Your task to perform on an android device: change notification settings in the gmail app Image 0: 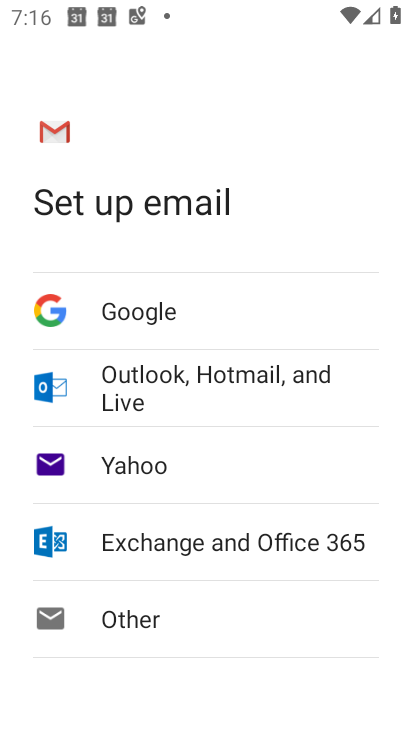
Step 0: press home button
Your task to perform on an android device: change notification settings in the gmail app Image 1: 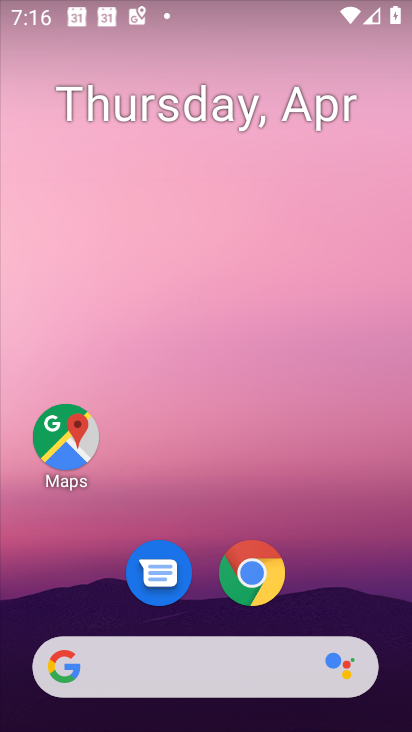
Step 1: drag from (391, 572) to (379, 170)
Your task to perform on an android device: change notification settings in the gmail app Image 2: 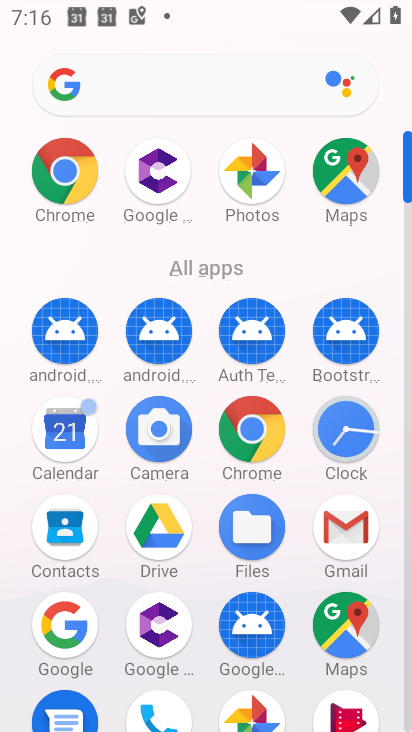
Step 2: click (353, 539)
Your task to perform on an android device: change notification settings in the gmail app Image 3: 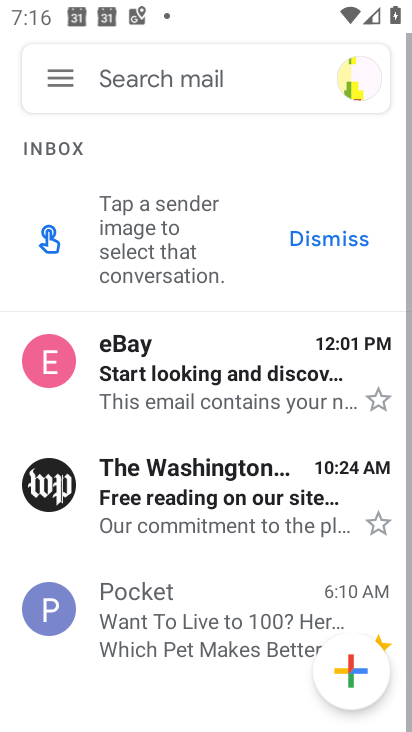
Step 3: click (55, 82)
Your task to perform on an android device: change notification settings in the gmail app Image 4: 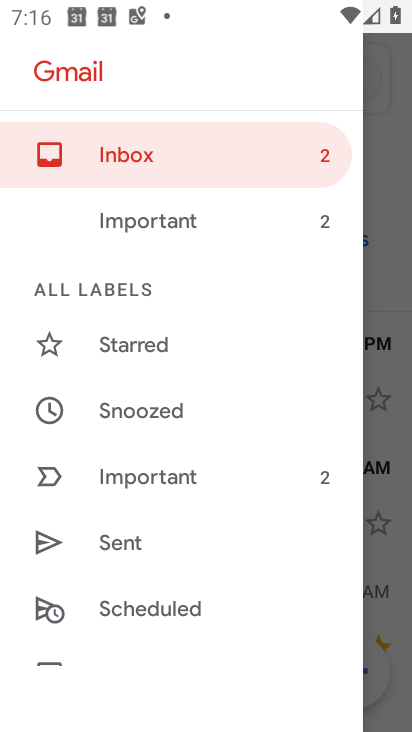
Step 4: drag from (272, 617) to (248, 204)
Your task to perform on an android device: change notification settings in the gmail app Image 5: 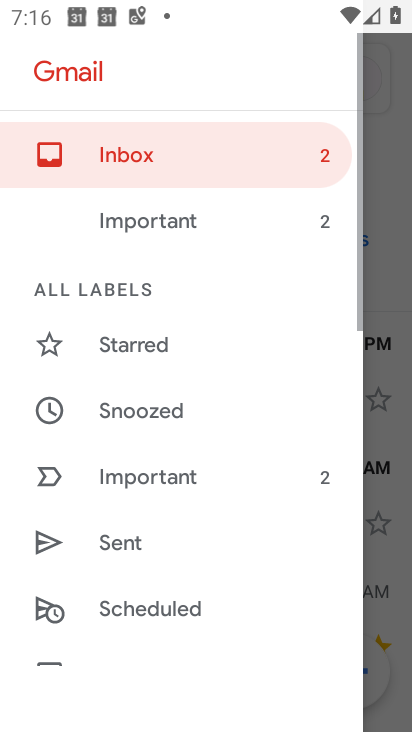
Step 5: click (234, 191)
Your task to perform on an android device: change notification settings in the gmail app Image 6: 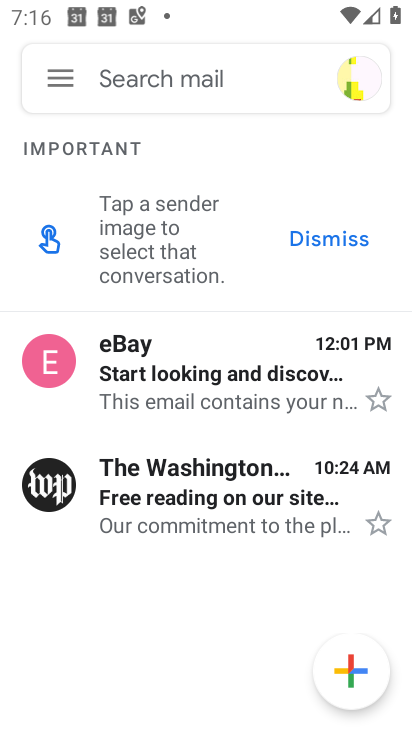
Step 6: press back button
Your task to perform on an android device: change notification settings in the gmail app Image 7: 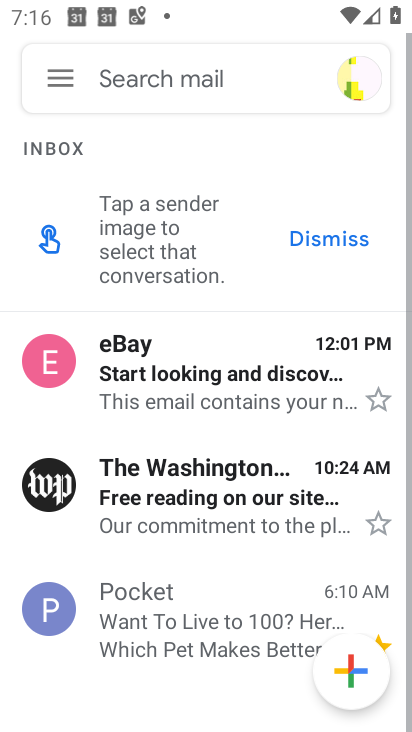
Step 7: click (59, 80)
Your task to perform on an android device: change notification settings in the gmail app Image 8: 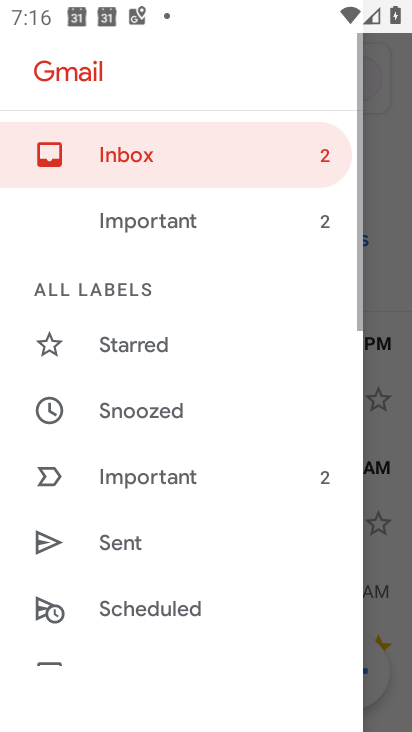
Step 8: drag from (273, 528) to (268, 177)
Your task to perform on an android device: change notification settings in the gmail app Image 9: 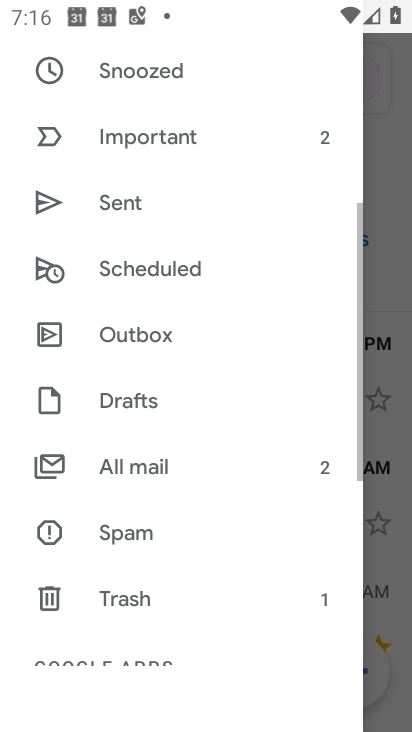
Step 9: drag from (268, 609) to (260, 230)
Your task to perform on an android device: change notification settings in the gmail app Image 10: 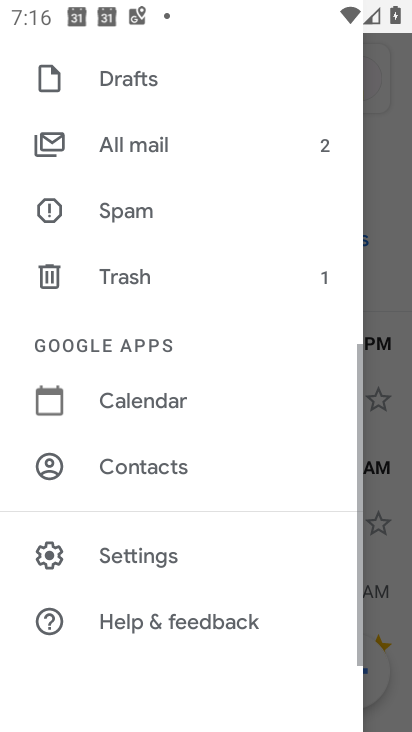
Step 10: click (151, 542)
Your task to perform on an android device: change notification settings in the gmail app Image 11: 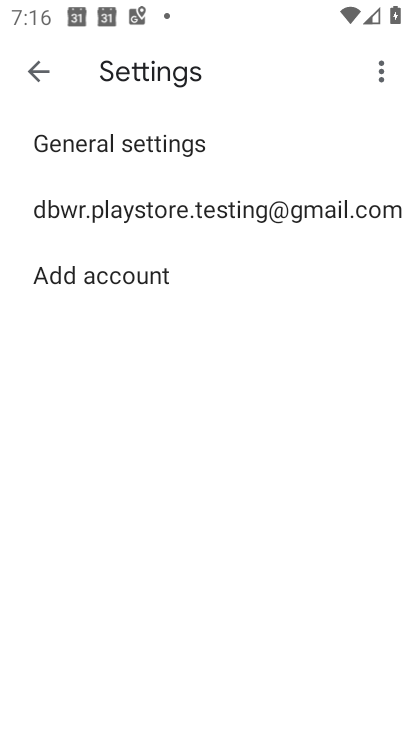
Step 11: click (113, 141)
Your task to perform on an android device: change notification settings in the gmail app Image 12: 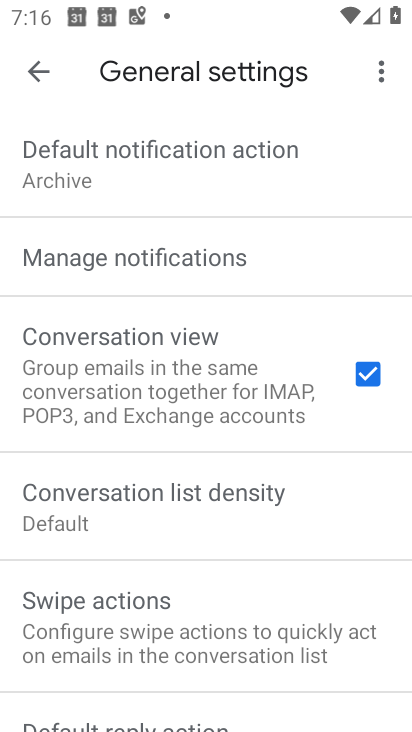
Step 12: click (120, 258)
Your task to perform on an android device: change notification settings in the gmail app Image 13: 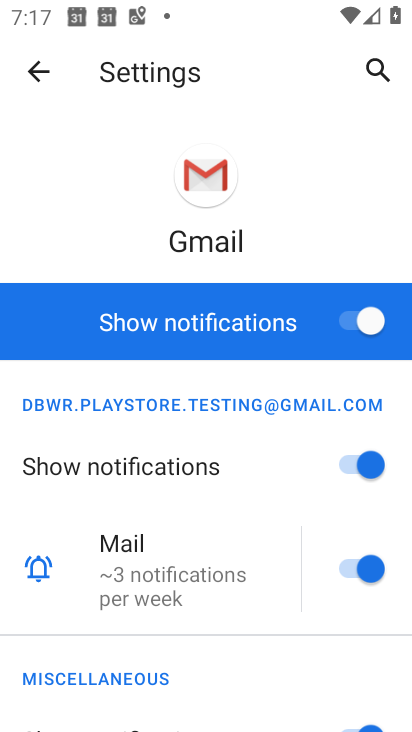
Step 13: click (347, 316)
Your task to perform on an android device: change notification settings in the gmail app Image 14: 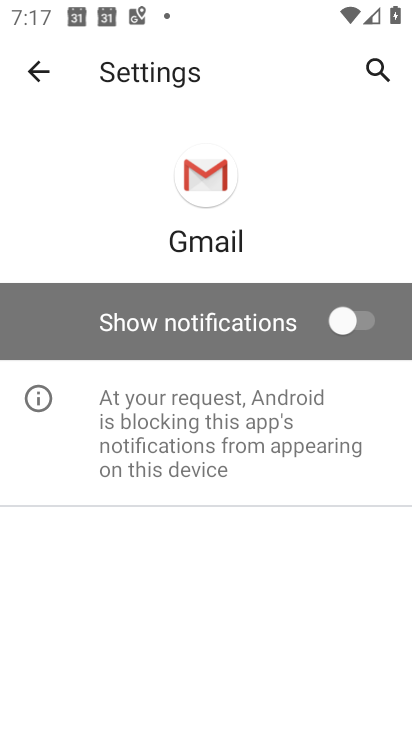
Step 14: task complete